Your task to perform on an android device: Open the calendar and show me this week's events? Image 0: 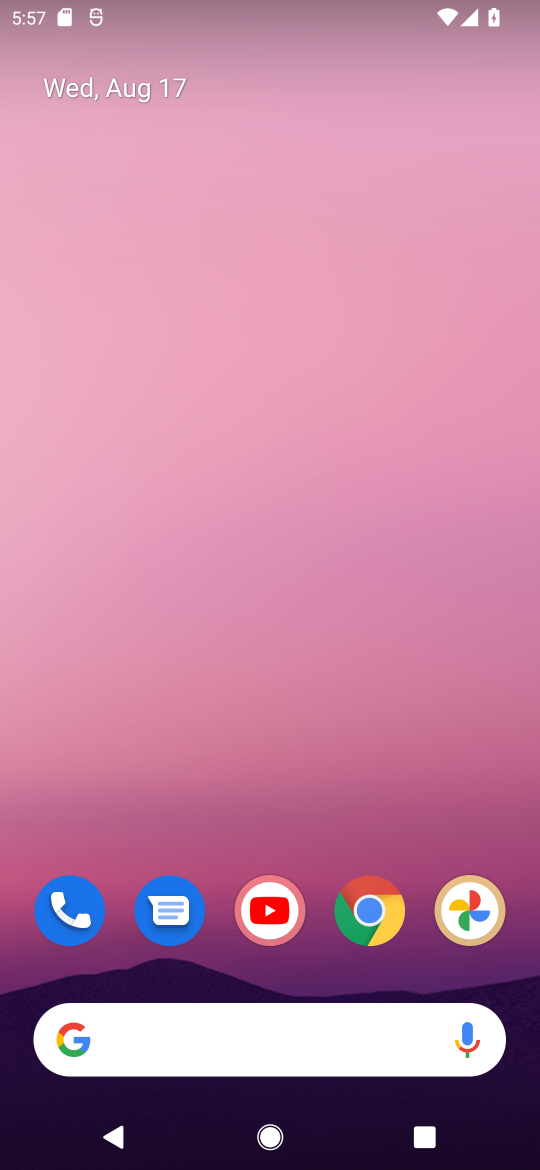
Step 0: drag from (317, 817) to (374, 191)
Your task to perform on an android device: Open the calendar and show me this week's events? Image 1: 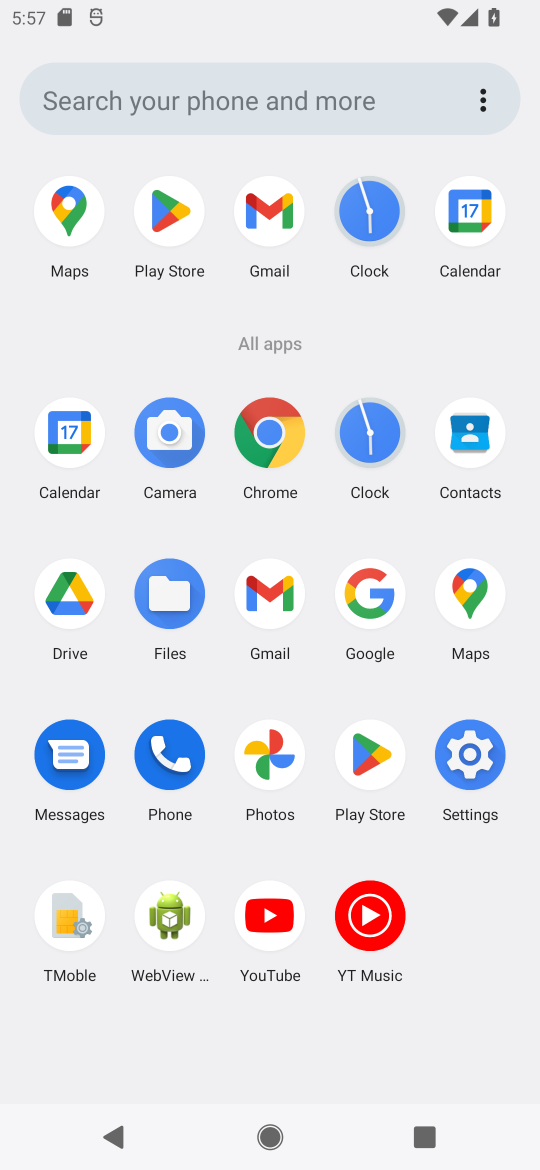
Step 1: click (67, 443)
Your task to perform on an android device: Open the calendar and show me this week's events? Image 2: 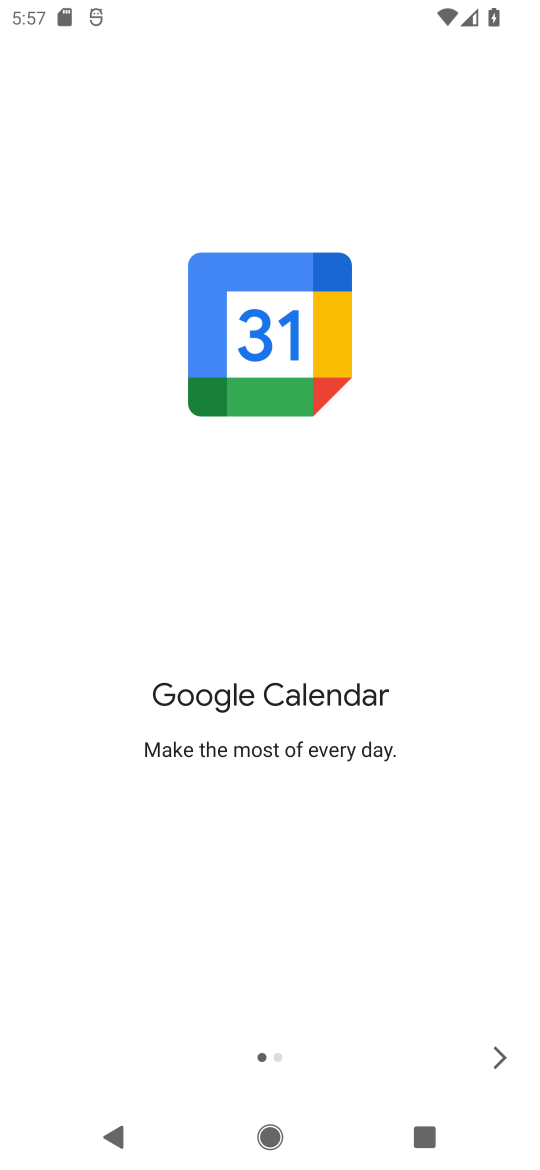
Step 2: task complete